Your task to perform on an android device: See recent photos Image 0: 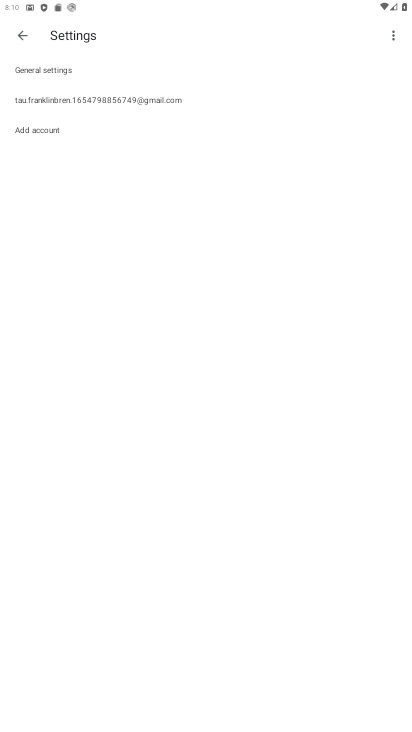
Step 0: press home button
Your task to perform on an android device: See recent photos Image 1: 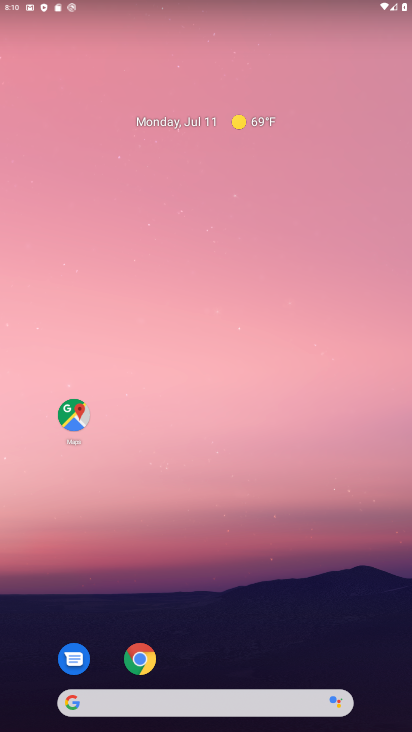
Step 1: drag from (209, 670) to (279, 200)
Your task to perform on an android device: See recent photos Image 2: 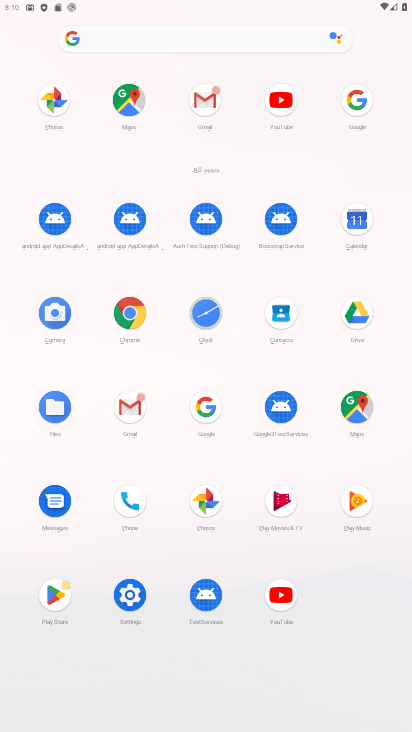
Step 2: click (194, 509)
Your task to perform on an android device: See recent photos Image 3: 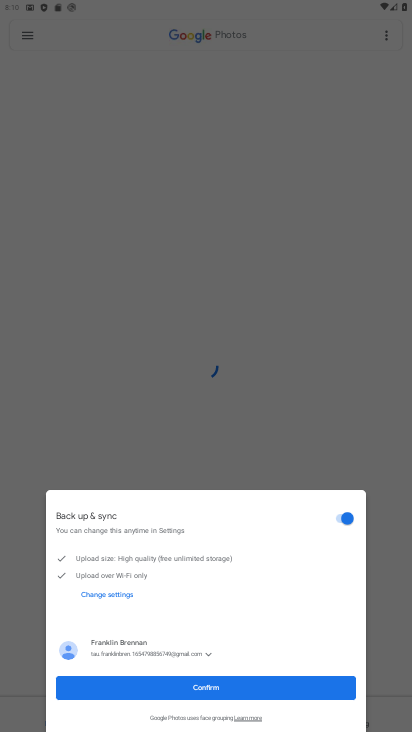
Step 3: click (208, 687)
Your task to perform on an android device: See recent photos Image 4: 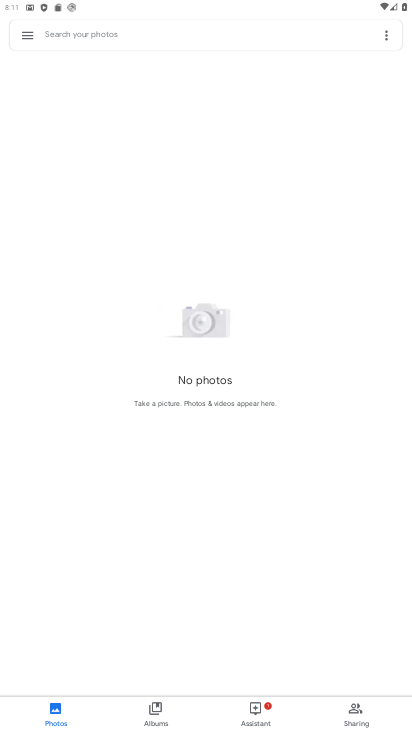
Step 4: task complete